Your task to perform on an android device: What's on my calendar today? Image 0: 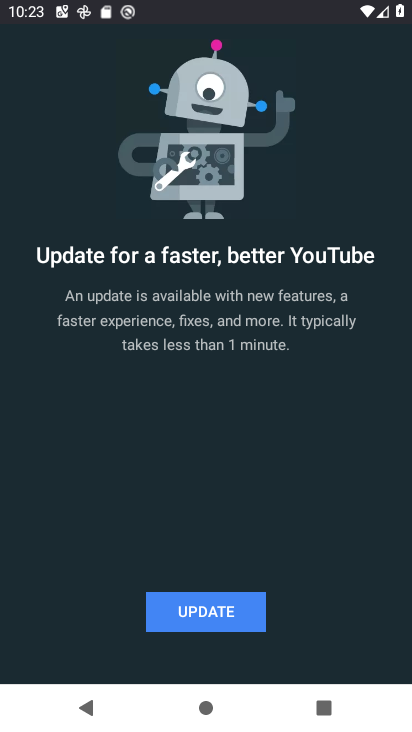
Step 0: press home button
Your task to perform on an android device: What's on my calendar today? Image 1: 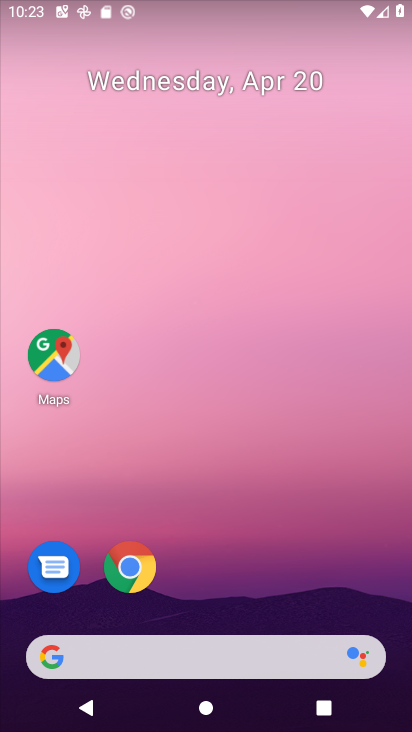
Step 1: drag from (365, 573) to (344, 189)
Your task to perform on an android device: What's on my calendar today? Image 2: 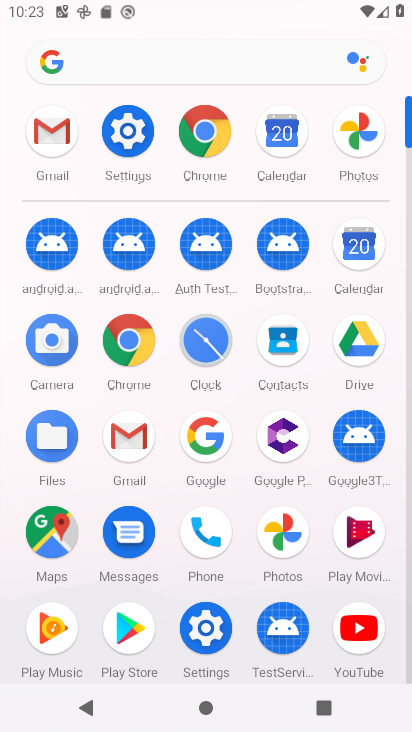
Step 2: click (356, 253)
Your task to perform on an android device: What's on my calendar today? Image 3: 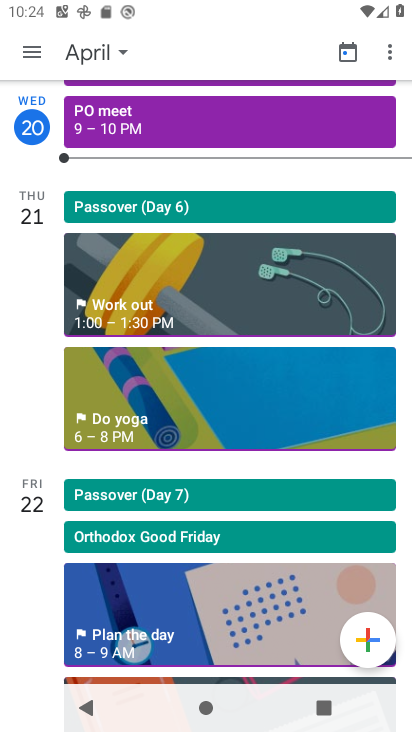
Step 3: click (126, 47)
Your task to perform on an android device: What's on my calendar today? Image 4: 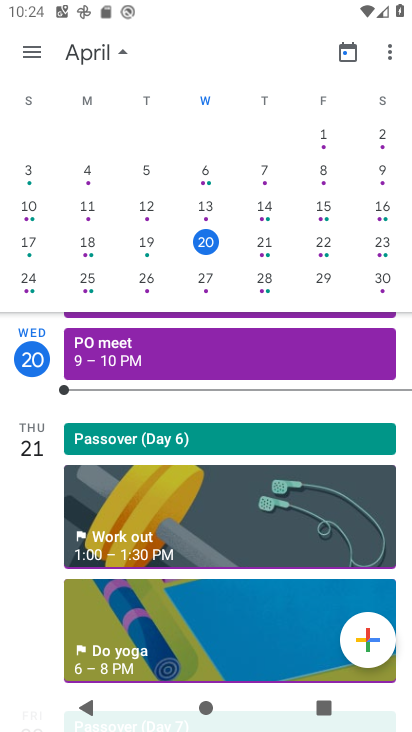
Step 4: click (260, 238)
Your task to perform on an android device: What's on my calendar today? Image 5: 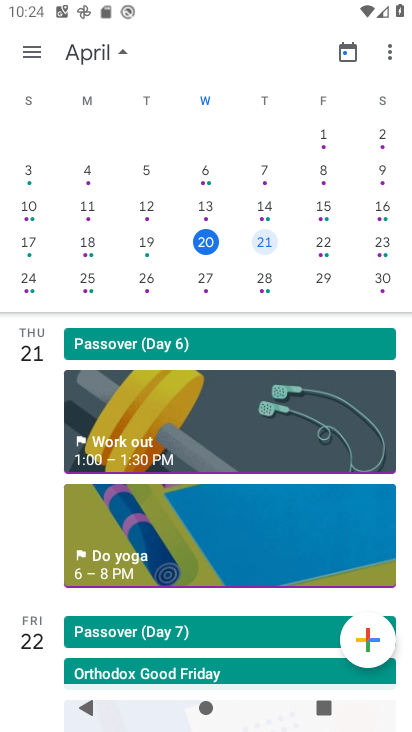
Step 5: task complete